Your task to perform on an android device: turn pop-ups off in chrome Image 0: 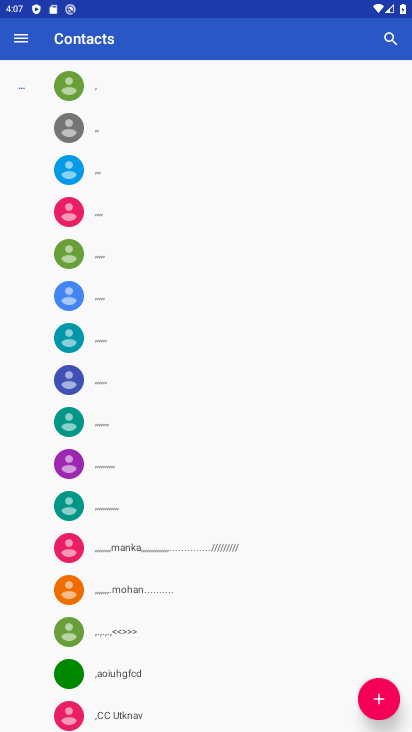
Step 0: press home button
Your task to perform on an android device: turn pop-ups off in chrome Image 1: 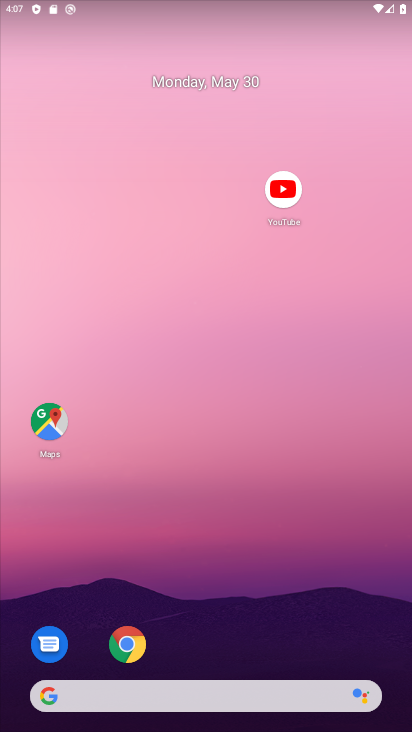
Step 1: click (133, 634)
Your task to perform on an android device: turn pop-ups off in chrome Image 2: 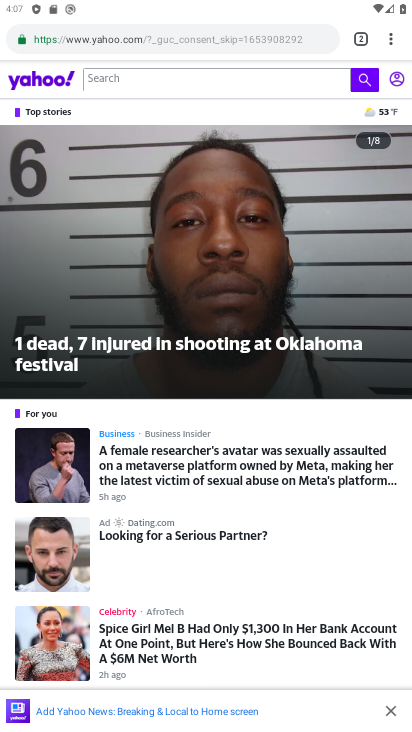
Step 2: click (393, 44)
Your task to perform on an android device: turn pop-ups off in chrome Image 3: 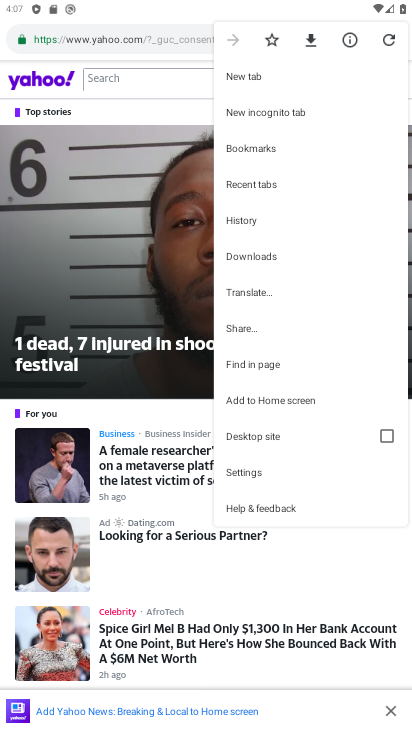
Step 3: click (262, 478)
Your task to perform on an android device: turn pop-ups off in chrome Image 4: 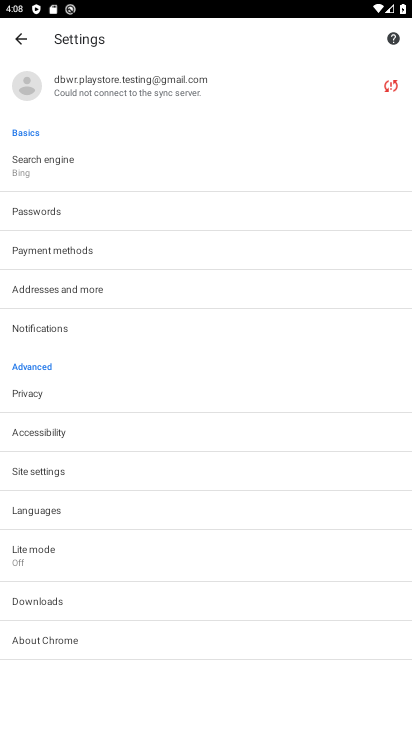
Step 4: click (82, 474)
Your task to perform on an android device: turn pop-ups off in chrome Image 5: 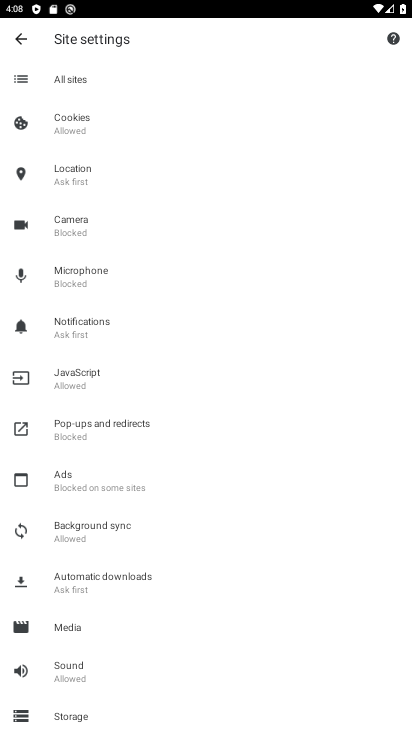
Step 5: click (126, 425)
Your task to perform on an android device: turn pop-ups off in chrome Image 6: 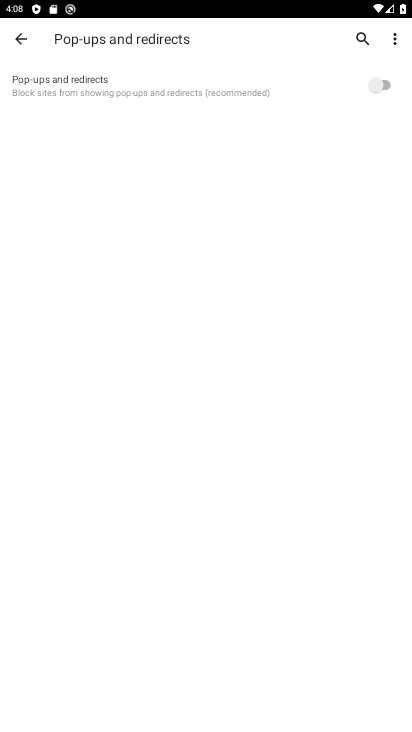
Step 6: task complete